Your task to perform on an android device: toggle show notifications on the lock screen Image 0: 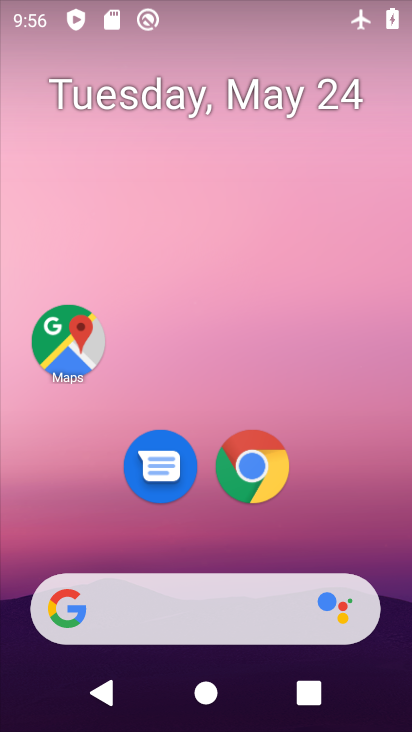
Step 0: drag from (201, 595) to (323, 0)
Your task to perform on an android device: toggle show notifications on the lock screen Image 1: 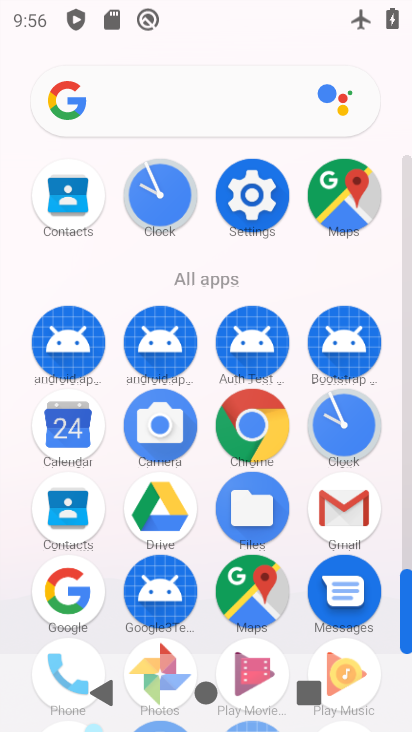
Step 1: click (262, 197)
Your task to perform on an android device: toggle show notifications on the lock screen Image 2: 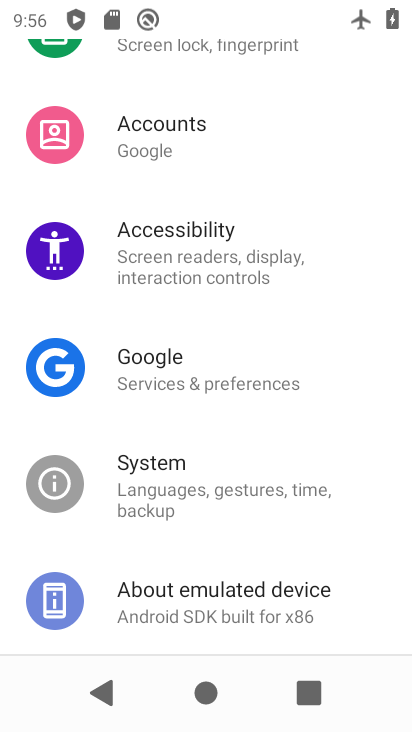
Step 2: drag from (196, 201) to (220, 497)
Your task to perform on an android device: toggle show notifications on the lock screen Image 3: 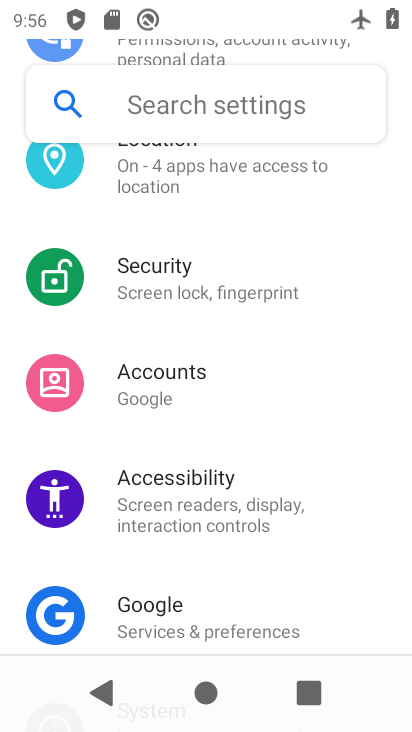
Step 3: drag from (213, 227) to (227, 696)
Your task to perform on an android device: toggle show notifications on the lock screen Image 4: 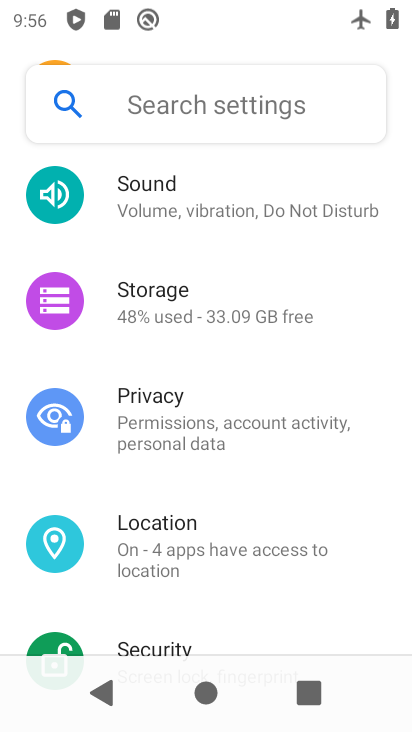
Step 4: drag from (224, 272) to (205, 643)
Your task to perform on an android device: toggle show notifications on the lock screen Image 5: 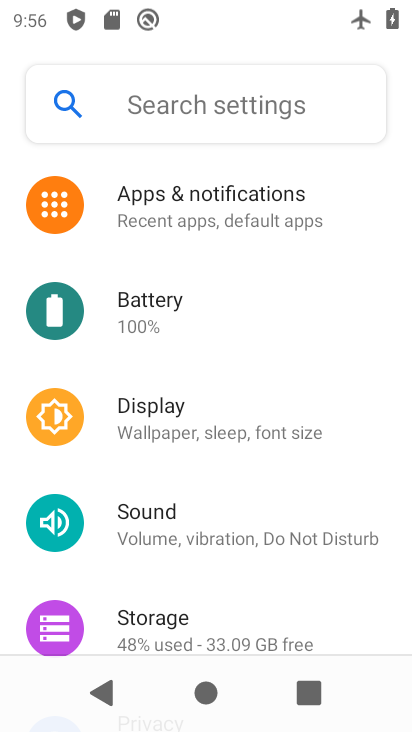
Step 5: click (195, 222)
Your task to perform on an android device: toggle show notifications on the lock screen Image 6: 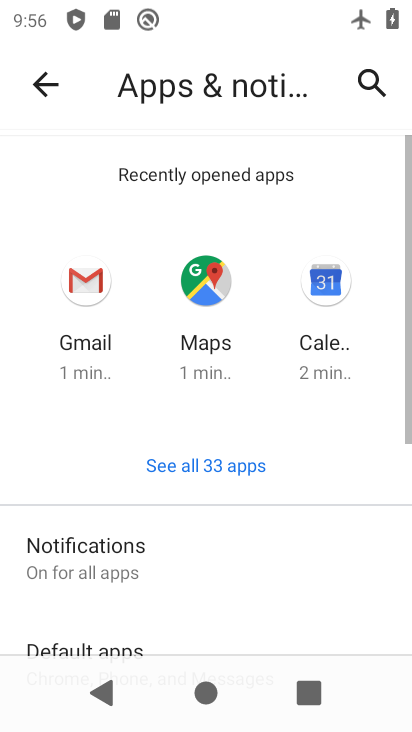
Step 6: click (190, 567)
Your task to perform on an android device: toggle show notifications on the lock screen Image 7: 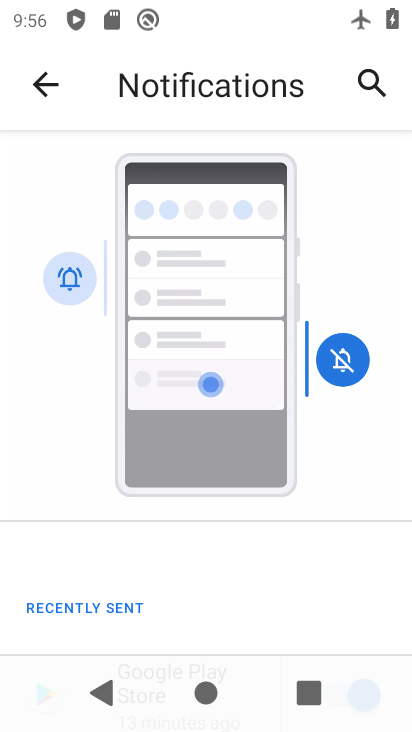
Step 7: drag from (191, 602) to (260, 68)
Your task to perform on an android device: toggle show notifications on the lock screen Image 8: 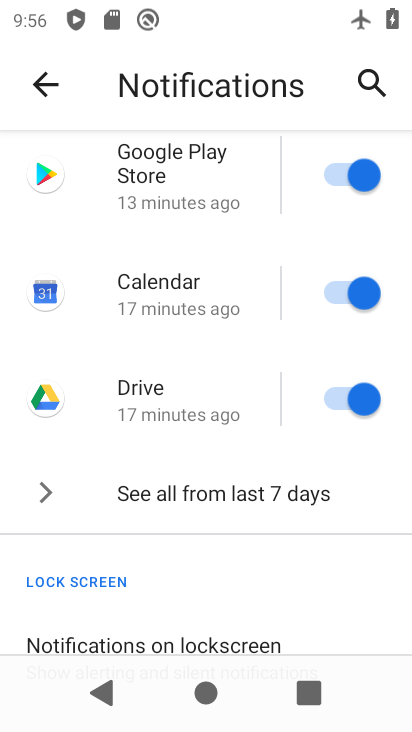
Step 8: drag from (216, 517) to (226, 210)
Your task to perform on an android device: toggle show notifications on the lock screen Image 9: 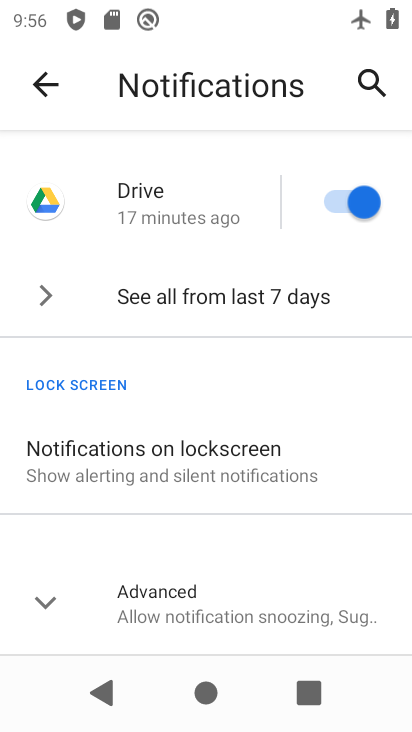
Step 9: click (213, 472)
Your task to perform on an android device: toggle show notifications on the lock screen Image 10: 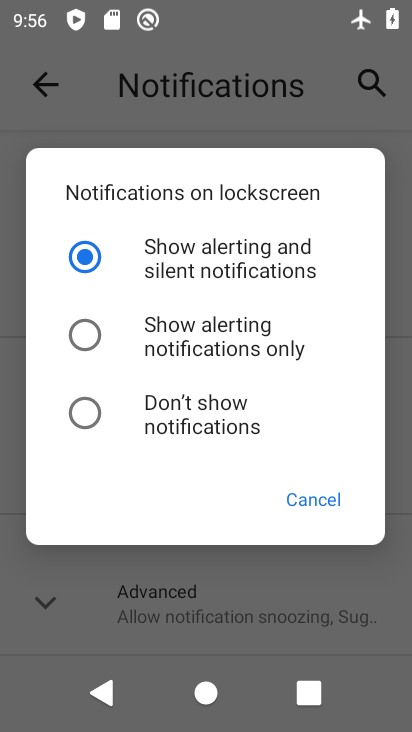
Step 10: click (135, 410)
Your task to perform on an android device: toggle show notifications on the lock screen Image 11: 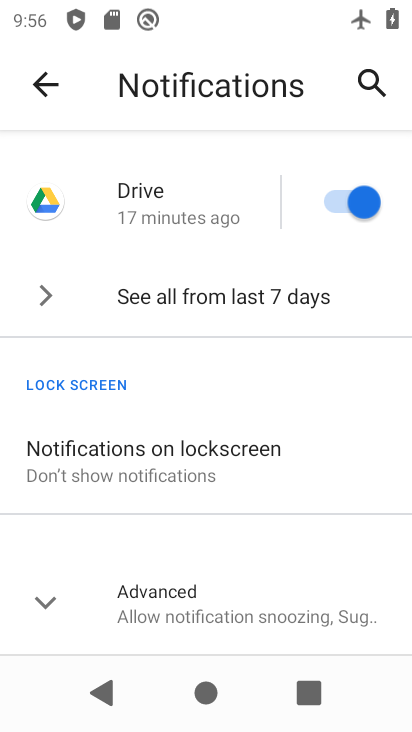
Step 11: task complete